Your task to perform on an android device: Open settings Image 0: 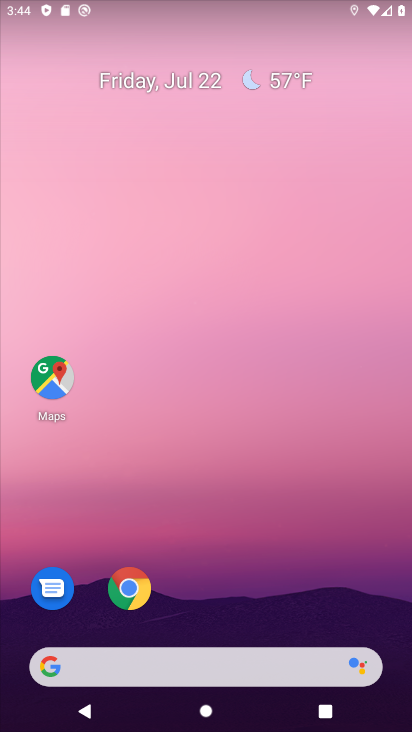
Step 0: drag from (215, 647) to (201, 73)
Your task to perform on an android device: Open settings Image 1: 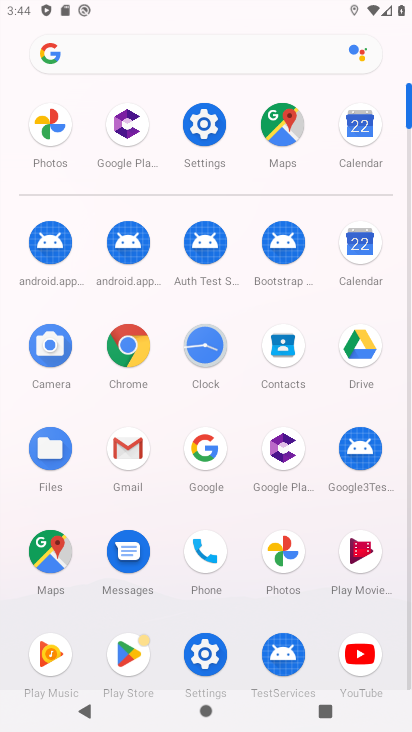
Step 1: click (201, 119)
Your task to perform on an android device: Open settings Image 2: 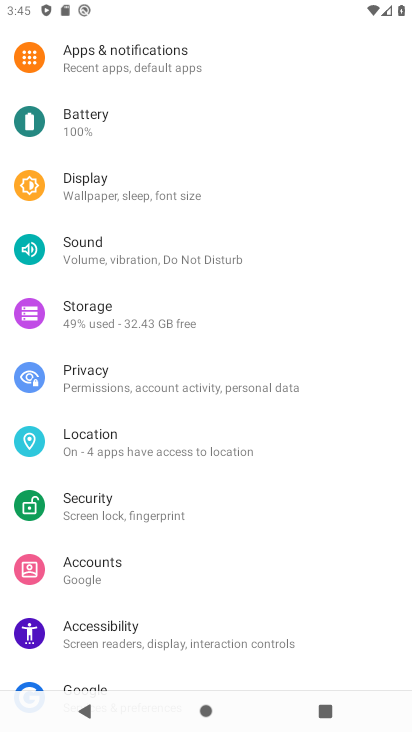
Step 2: task complete